Your task to perform on an android device: star an email in the gmail app Image 0: 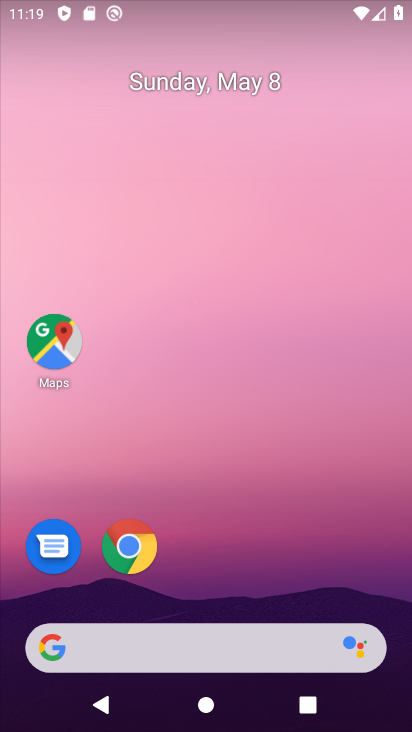
Step 0: drag from (245, 586) to (225, 176)
Your task to perform on an android device: star an email in the gmail app Image 1: 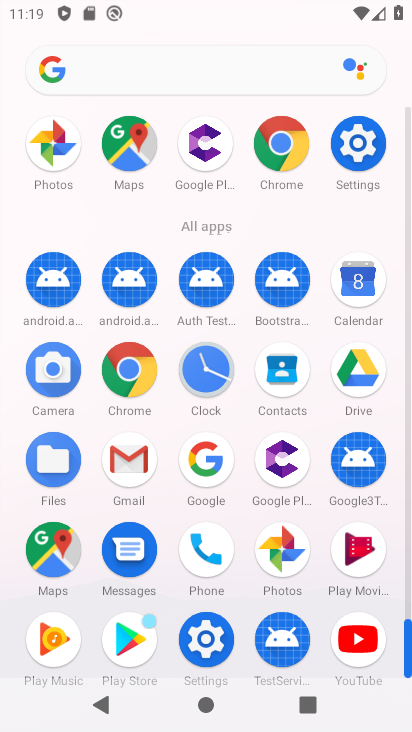
Step 1: click (138, 473)
Your task to perform on an android device: star an email in the gmail app Image 2: 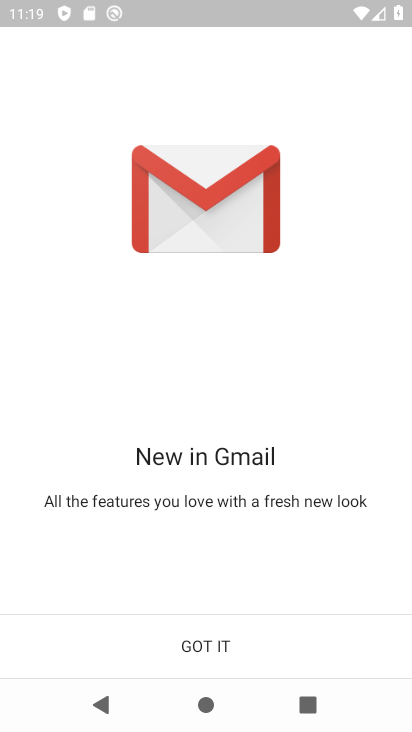
Step 2: click (214, 645)
Your task to perform on an android device: star an email in the gmail app Image 3: 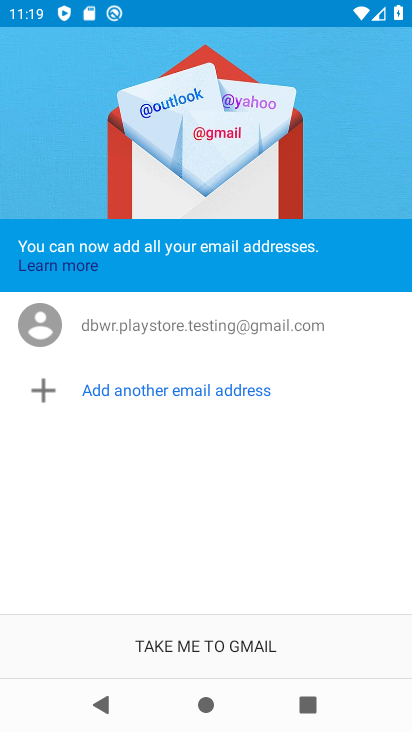
Step 3: click (211, 640)
Your task to perform on an android device: star an email in the gmail app Image 4: 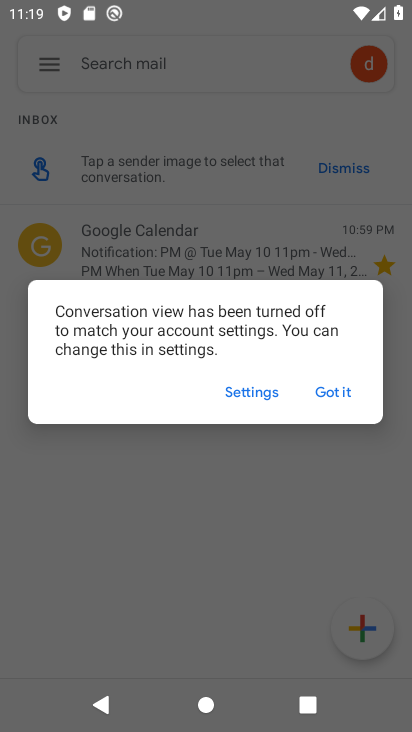
Step 4: click (340, 392)
Your task to perform on an android device: star an email in the gmail app Image 5: 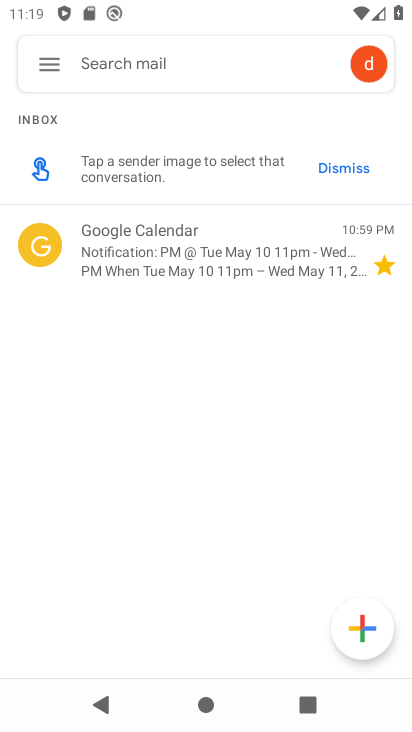
Step 5: click (49, 66)
Your task to perform on an android device: star an email in the gmail app Image 6: 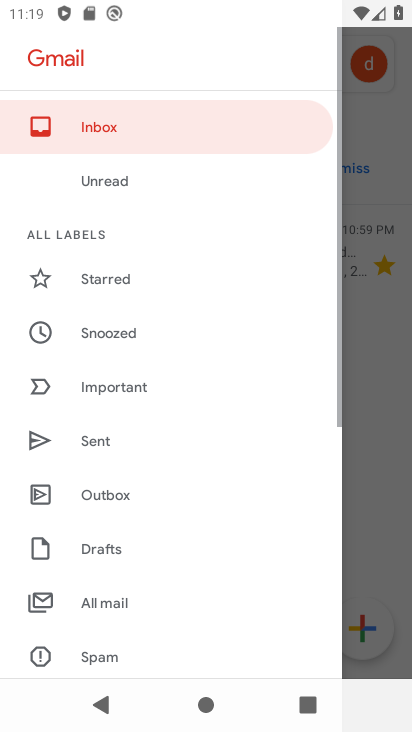
Step 6: click (84, 123)
Your task to perform on an android device: star an email in the gmail app Image 7: 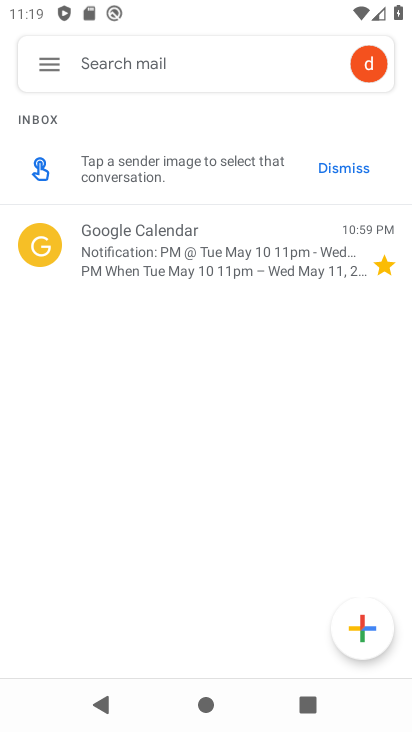
Step 7: task complete